Your task to perform on an android device: check the backup settings in the google photos Image 0: 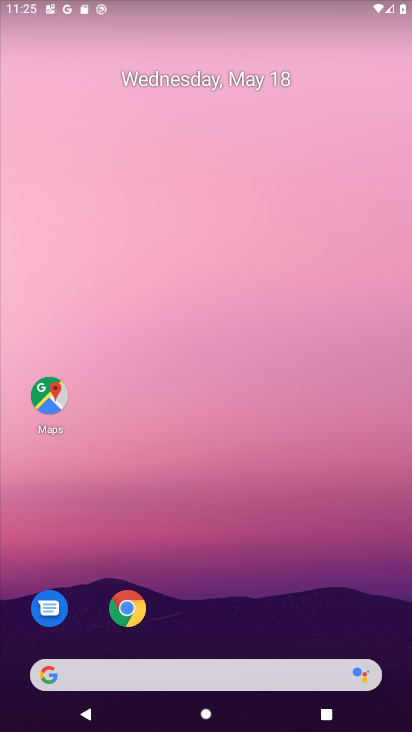
Step 0: drag from (185, 596) to (200, 469)
Your task to perform on an android device: check the backup settings in the google photos Image 1: 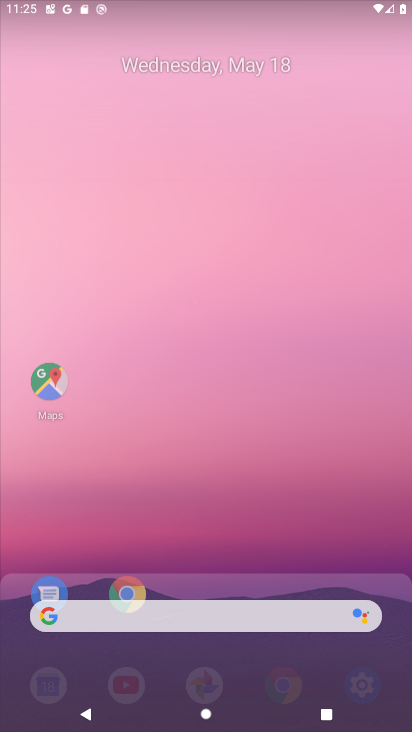
Step 1: click (219, 354)
Your task to perform on an android device: check the backup settings in the google photos Image 2: 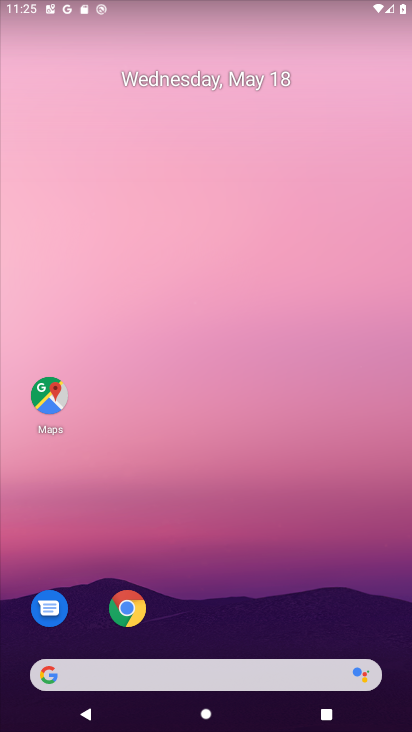
Step 2: drag from (257, 525) to (272, 437)
Your task to perform on an android device: check the backup settings in the google photos Image 3: 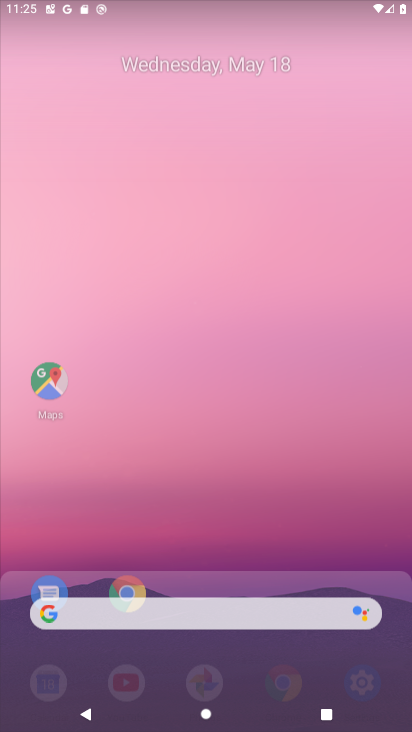
Step 3: click (275, 426)
Your task to perform on an android device: check the backup settings in the google photos Image 4: 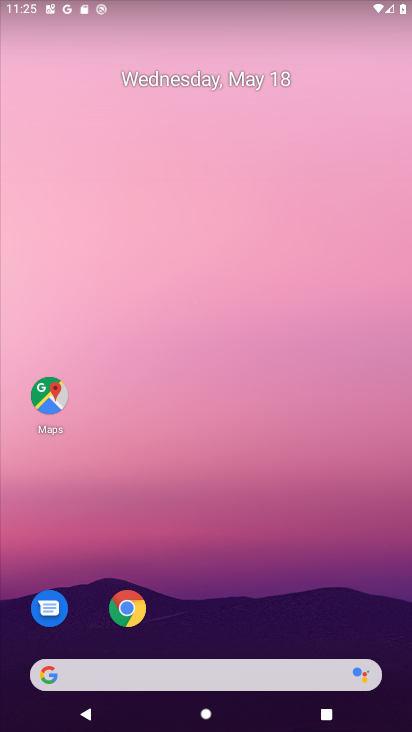
Step 4: drag from (294, 619) to (307, 548)
Your task to perform on an android device: check the backup settings in the google photos Image 5: 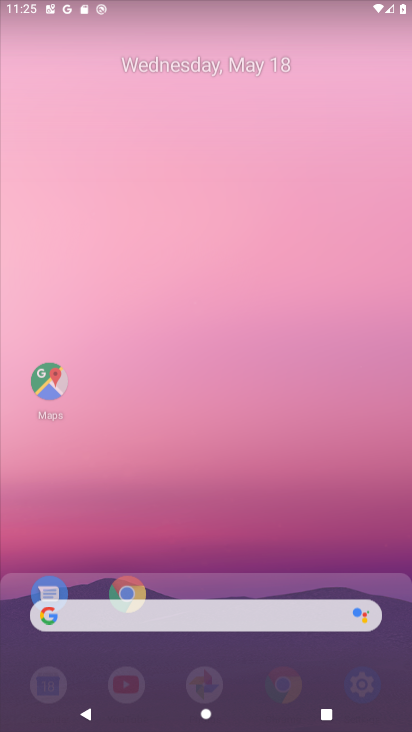
Step 5: click (308, 538)
Your task to perform on an android device: check the backup settings in the google photos Image 6: 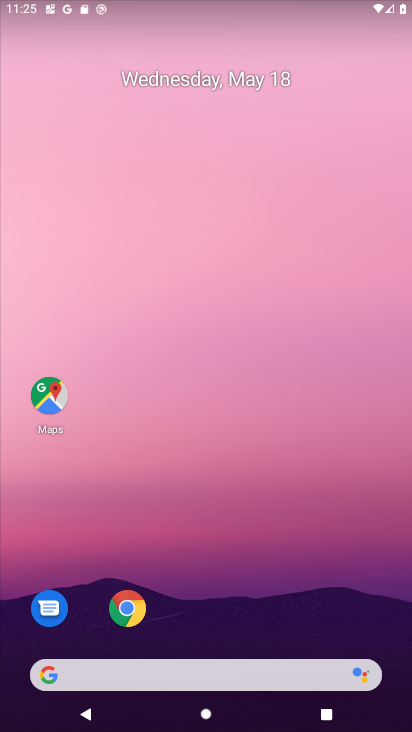
Step 6: click (309, 536)
Your task to perform on an android device: check the backup settings in the google photos Image 7: 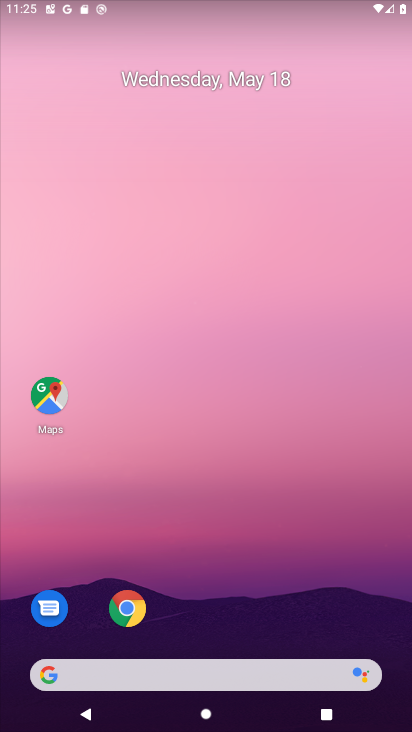
Step 7: click (320, 498)
Your task to perform on an android device: check the backup settings in the google photos Image 8: 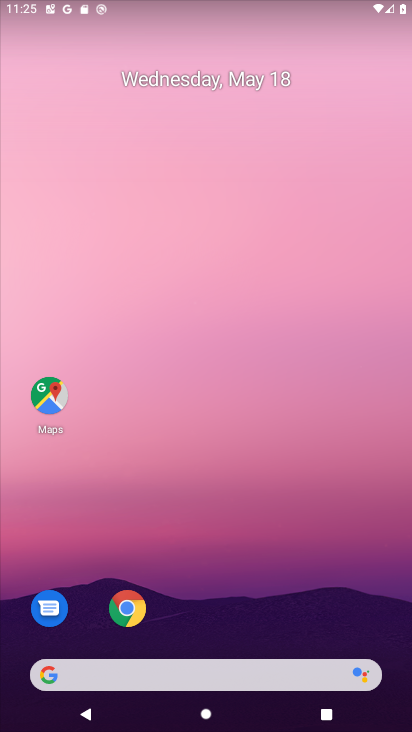
Step 8: click (320, 498)
Your task to perform on an android device: check the backup settings in the google photos Image 9: 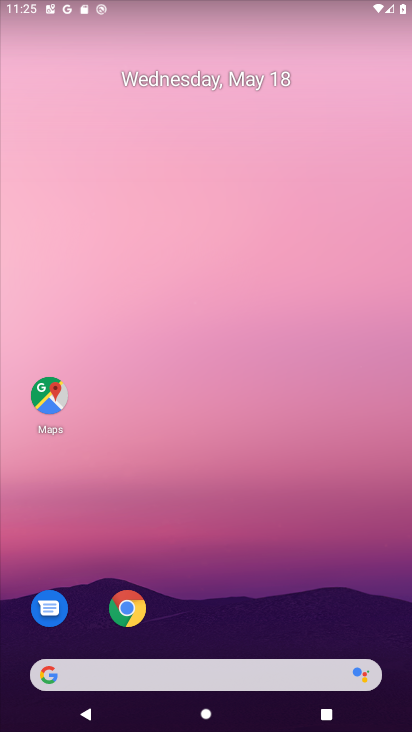
Step 9: click (320, 498)
Your task to perform on an android device: check the backup settings in the google photos Image 10: 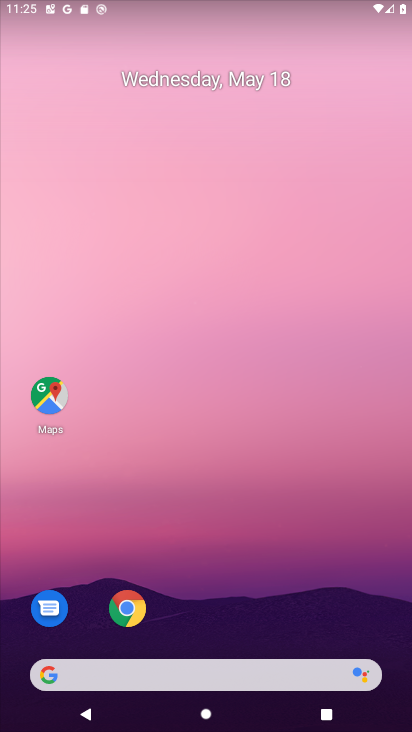
Step 10: drag from (208, 565) to (246, 189)
Your task to perform on an android device: check the backup settings in the google photos Image 11: 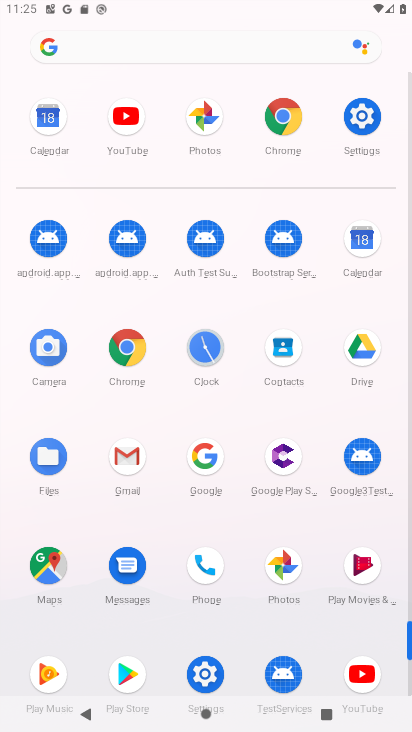
Step 11: click (219, 119)
Your task to perform on an android device: check the backup settings in the google photos Image 12: 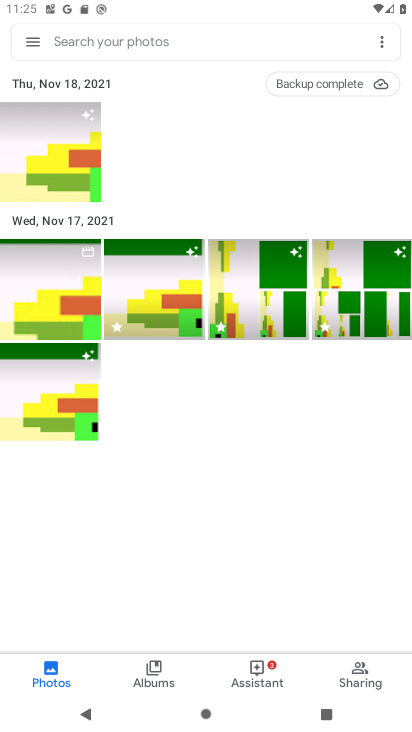
Step 12: click (38, 46)
Your task to perform on an android device: check the backup settings in the google photos Image 13: 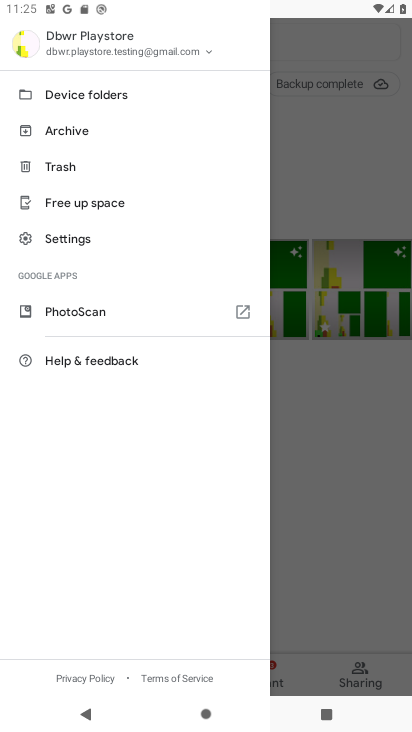
Step 13: click (61, 245)
Your task to perform on an android device: check the backup settings in the google photos Image 14: 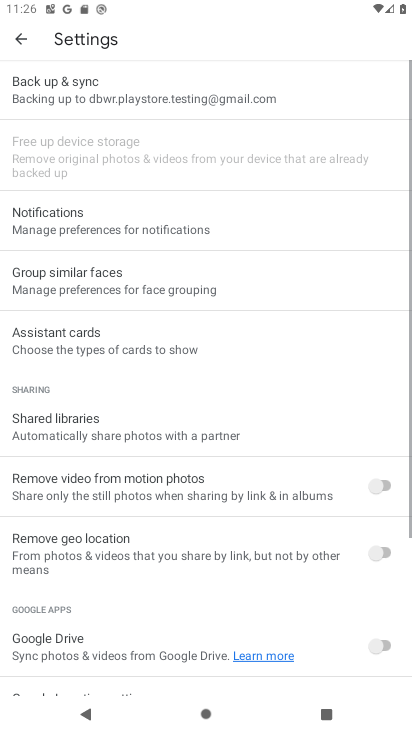
Step 14: click (70, 93)
Your task to perform on an android device: check the backup settings in the google photos Image 15: 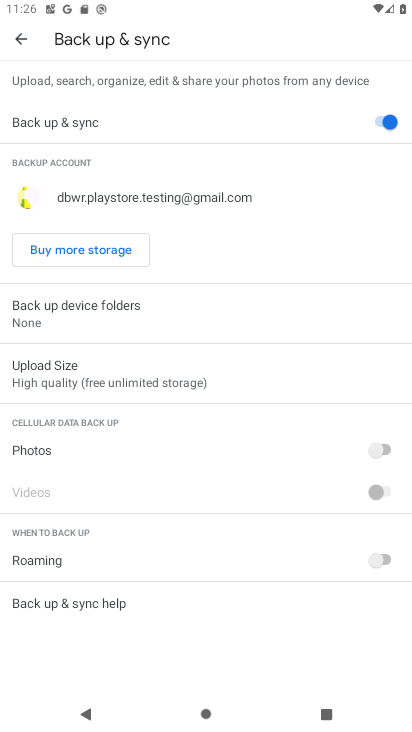
Step 15: task complete